Your task to perform on an android device: change the clock display to analog Image 0: 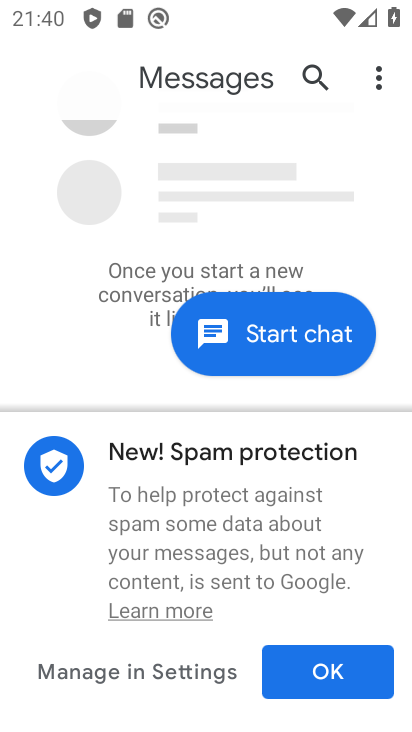
Step 0: press home button
Your task to perform on an android device: change the clock display to analog Image 1: 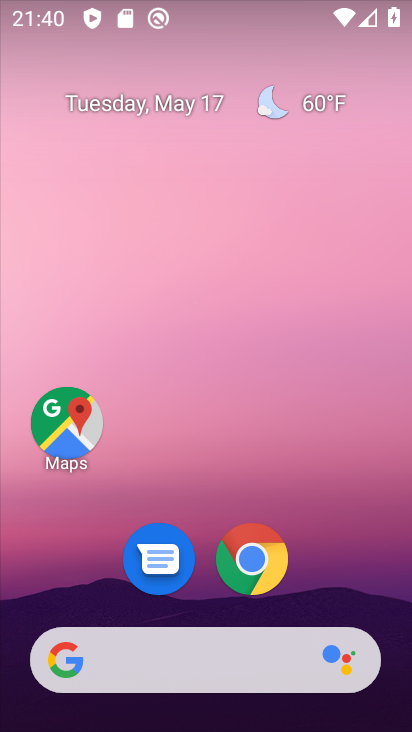
Step 1: drag from (375, 557) to (347, 178)
Your task to perform on an android device: change the clock display to analog Image 2: 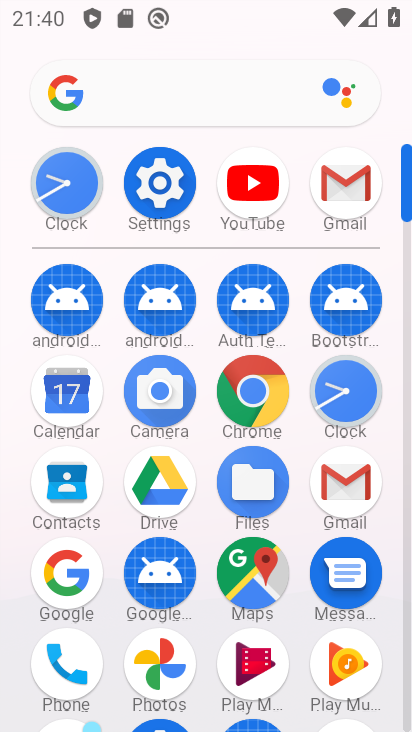
Step 2: click (336, 393)
Your task to perform on an android device: change the clock display to analog Image 3: 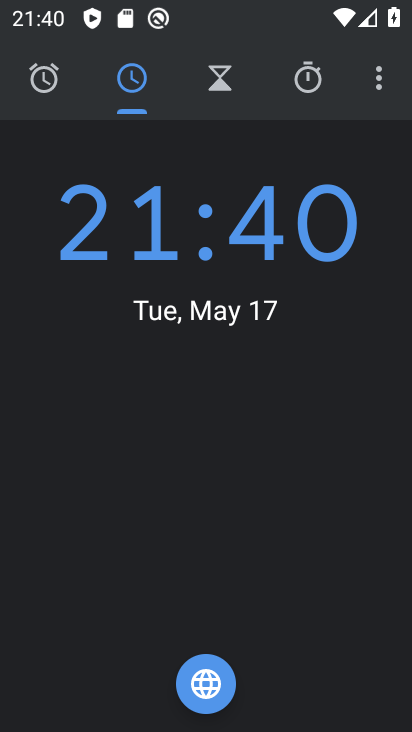
Step 3: click (377, 68)
Your task to perform on an android device: change the clock display to analog Image 4: 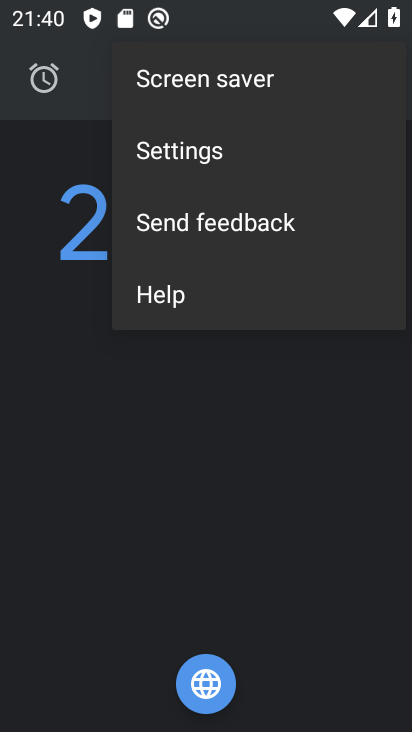
Step 4: click (199, 169)
Your task to perform on an android device: change the clock display to analog Image 5: 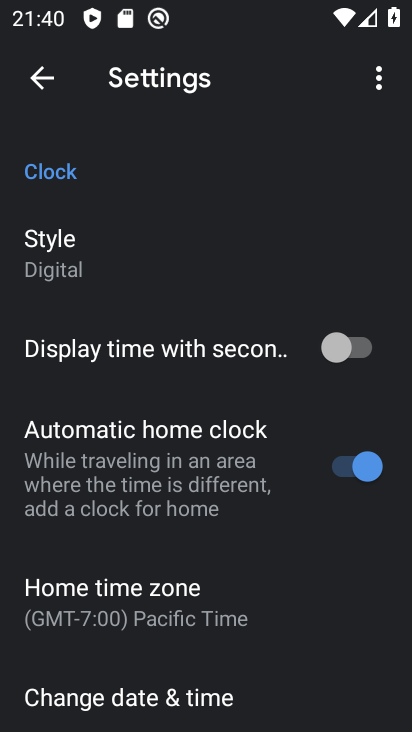
Step 5: click (68, 251)
Your task to perform on an android device: change the clock display to analog Image 6: 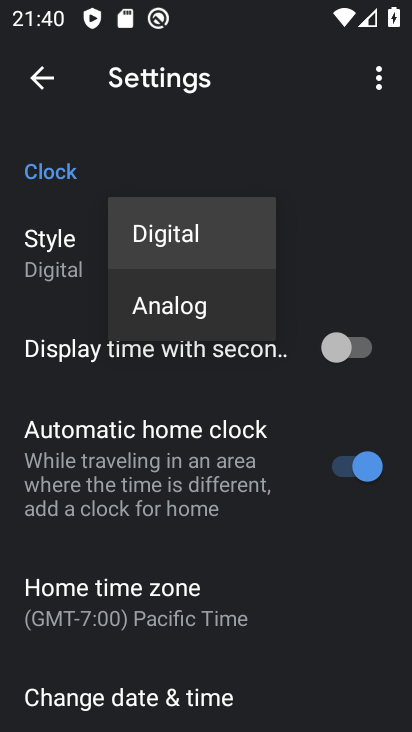
Step 6: click (182, 295)
Your task to perform on an android device: change the clock display to analog Image 7: 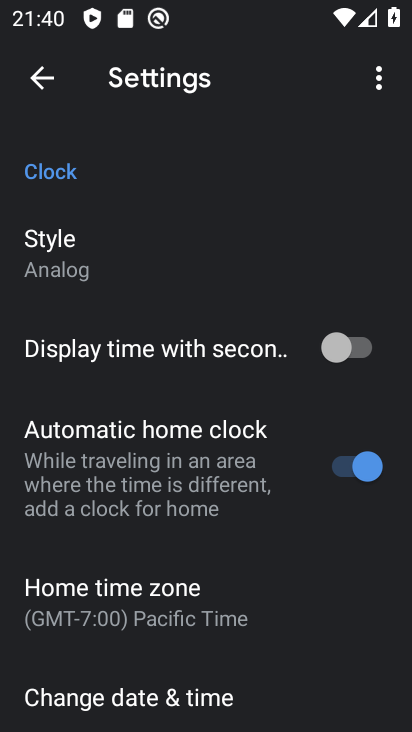
Step 7: task complete